Your task to perform on an android device: Open Chrome and go to settings Image 0: 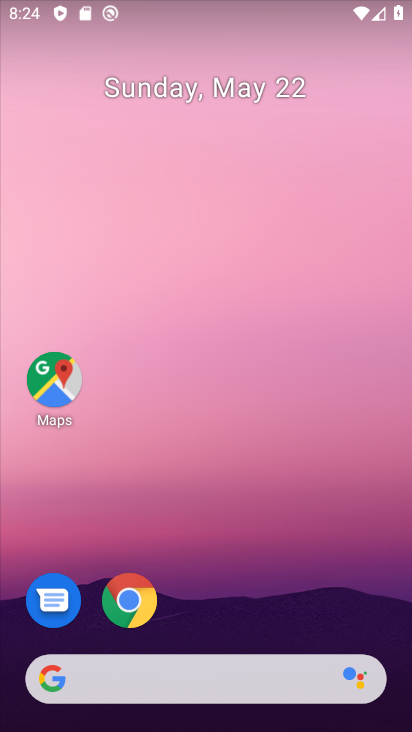
Step 0: click (131, 603)
Your task to perform on an android device: Open Chrome and go to settings Image 1: 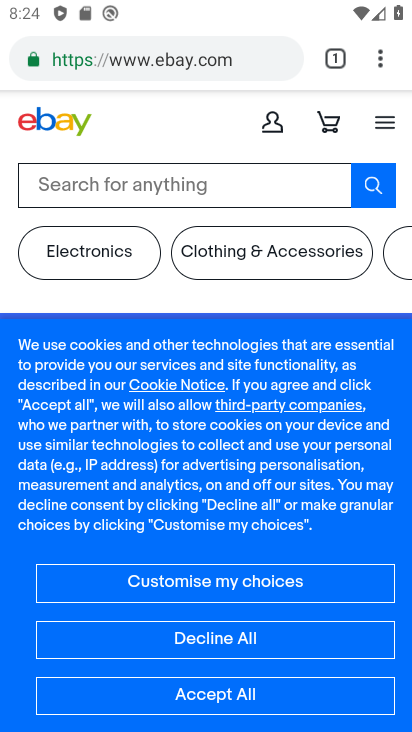
Step 1: click (387, 58)
Your task to perform on an android device: Open Chrome and go to settings Image 2: 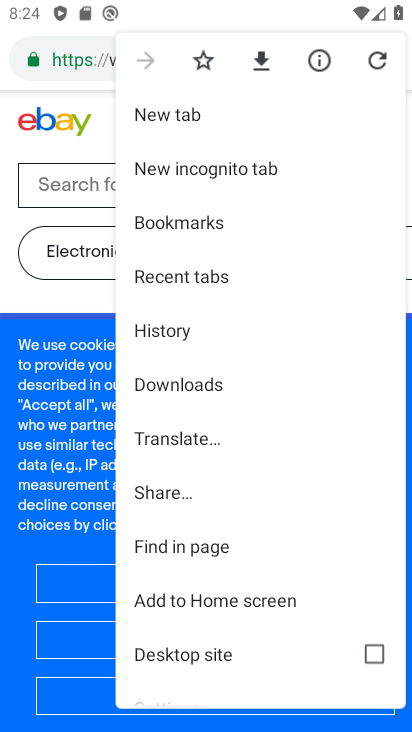
Step 2: drag from (219, 630) to (202, 462)
Your task to perform on an android device: Open Chrome and go to settings Image 3: 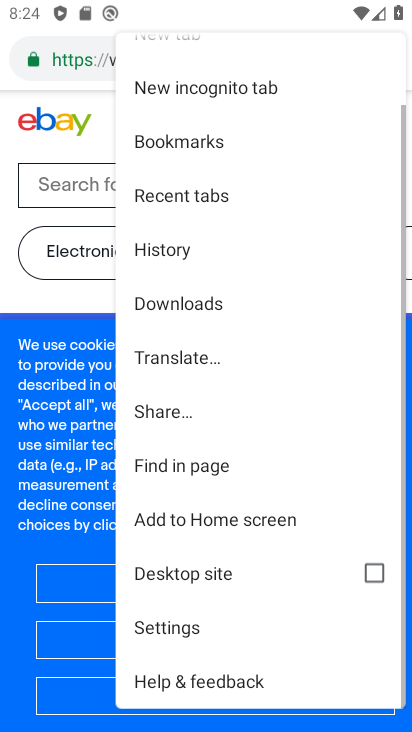
Step 3: click (182, 622)
Your task to perform on an android device: Open Chrome and go to settings Image 4: 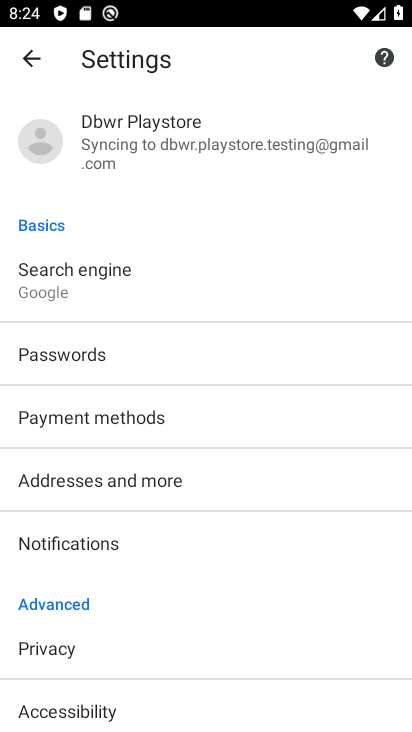
Step 4: task complete